Your task to perform on an android device: Go to ESPN.com Image 0: 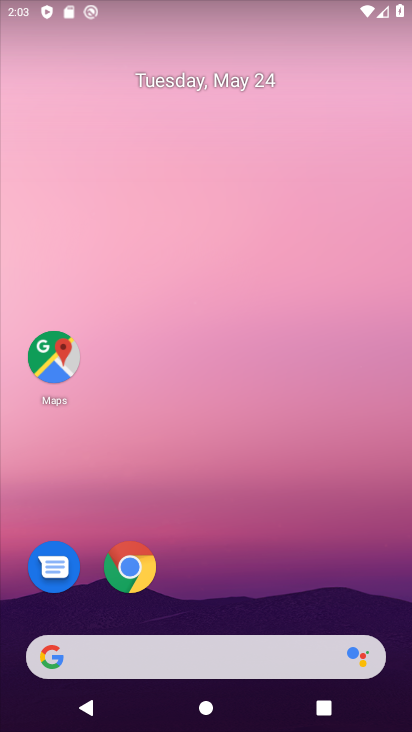
Step 0: click (117, 548)
Your task to perform on an android device: Go to ESPN.com Image 1: 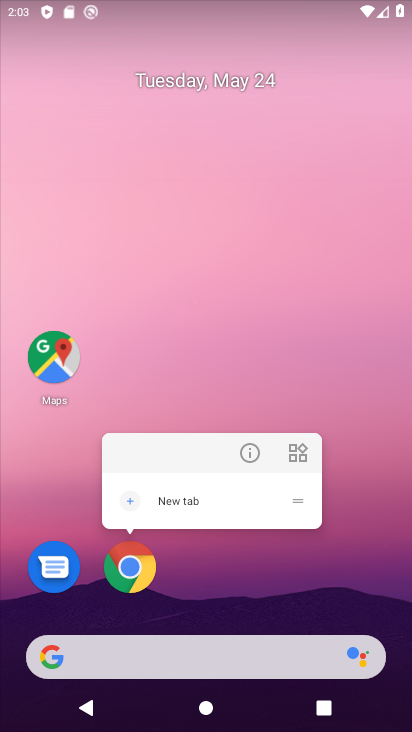
Step 1: click (131, 561)
Your task to perform on an android device: Go to ESPN.com Image 2: 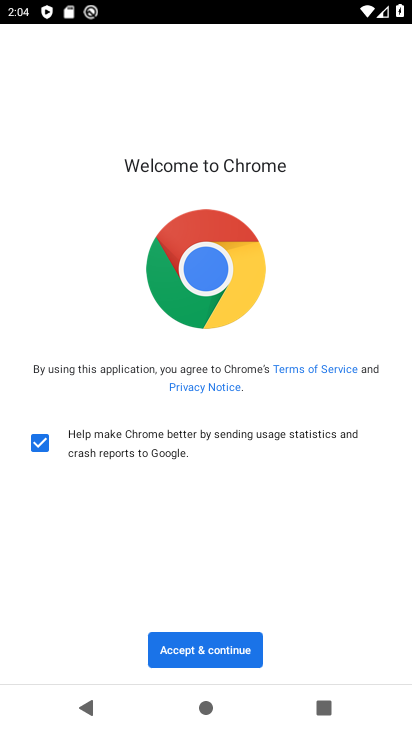
Step 2: click (210, 654)
Your task to perform on an android device: Go to ESPN.com Image 3: 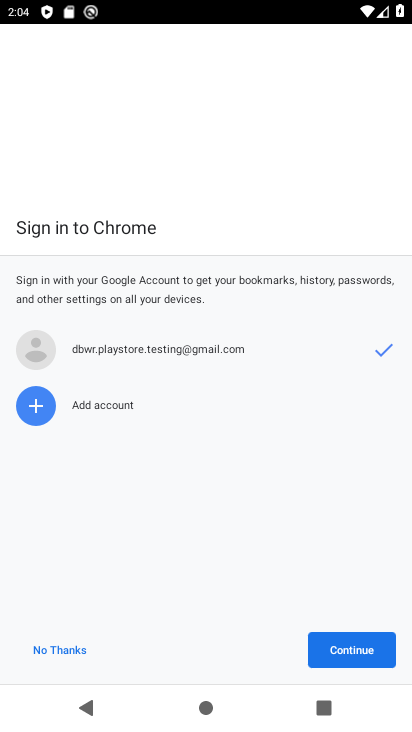
Step 3: click (315, 650)
Your task to perform on an android device: Go to ESPN.com Image 4: 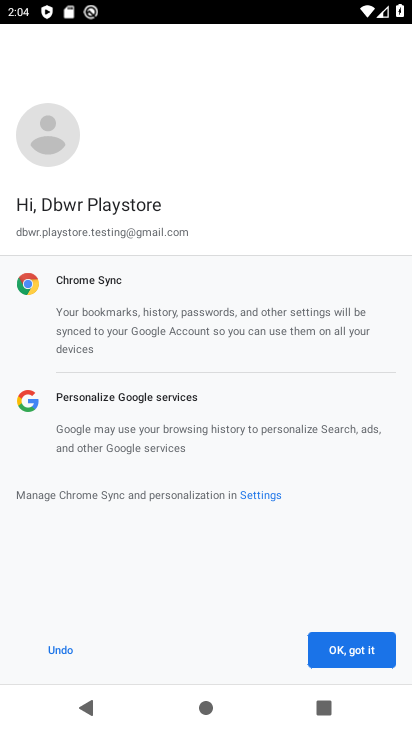
Step 4: click (351, 640)
Your task to perform on an android device: Go to ESPN.com Image 5: 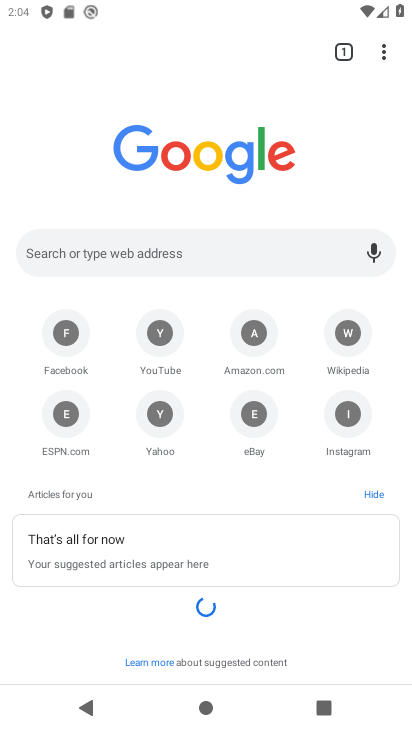
Step 5: click (47, 413)
Your task to perform on an android device: Go to ESPN.com Image 6: 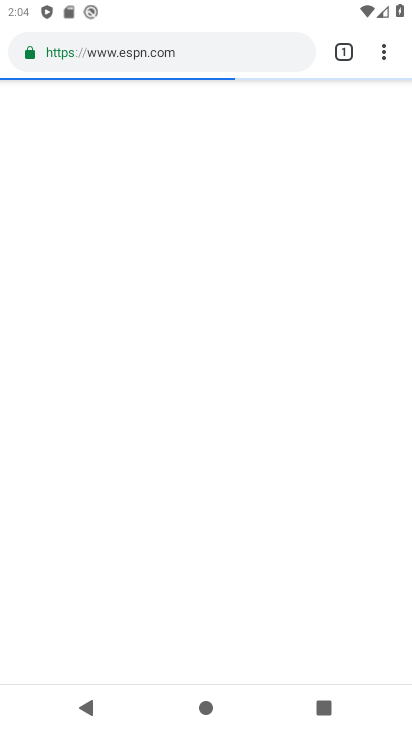
Step 6: task complete